Your task to perform on an android device: turn smart compose on in the gmail app Image 0: 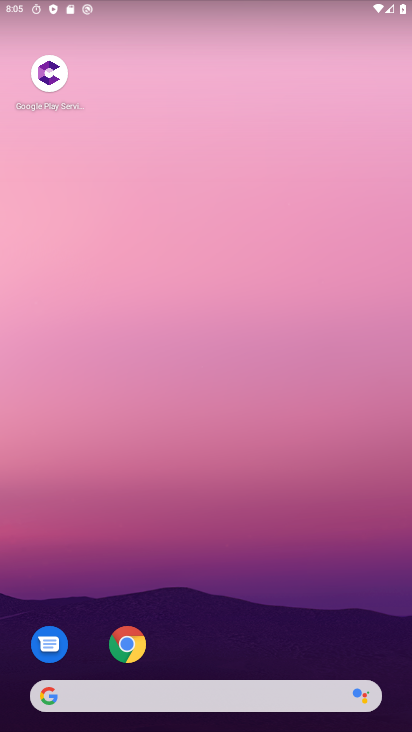
Step 0: drag from (122, 697) to (349, 234)
Your task to perform on an android device: turn smart compose on in the gmail app Image 1: 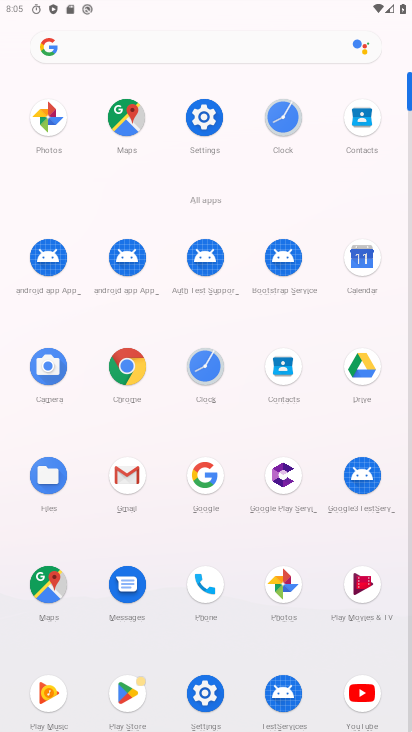
Step 1: click (132, 478)
Your task to perform on an android device: turn smart compose on in the gmail app Image 2: 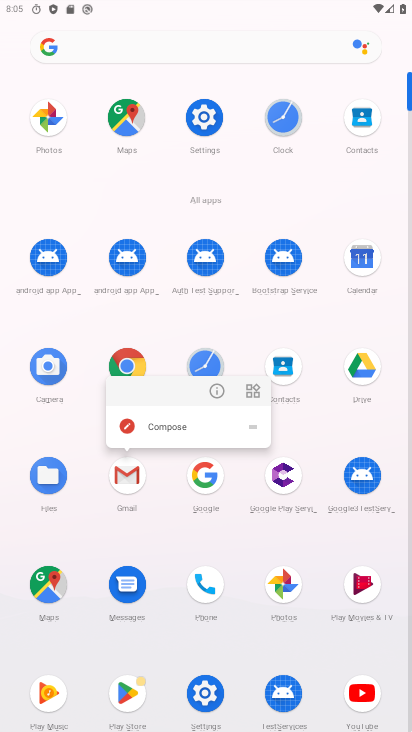
Step 2: click (129, 481)
Your task to perform on an android device: turn smart compose on in the gmail app Image 3: 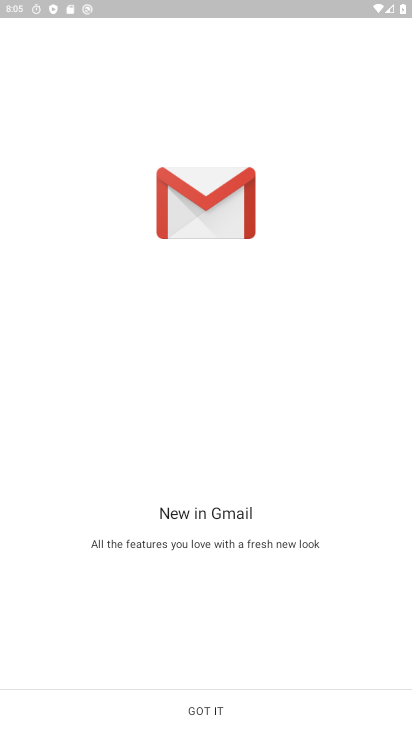
Step 3: click (202, 706)
Your task to perform on an android device: turn smart compose on in the gmail app Image 4: 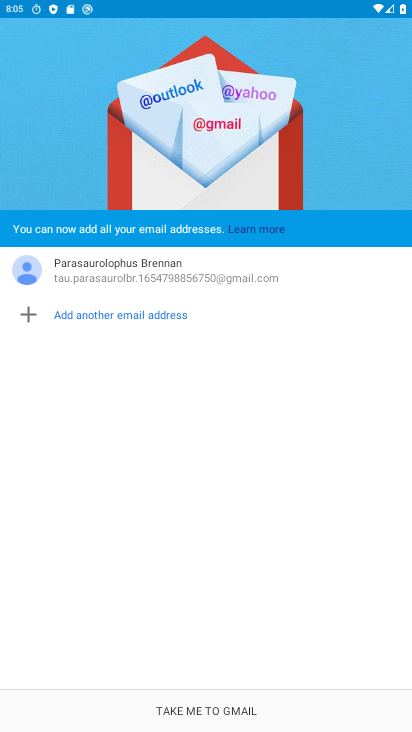
Step 4: click (208, 706)
Your task to perform on an android device: turn smart compose on in the gmail app Image 5: 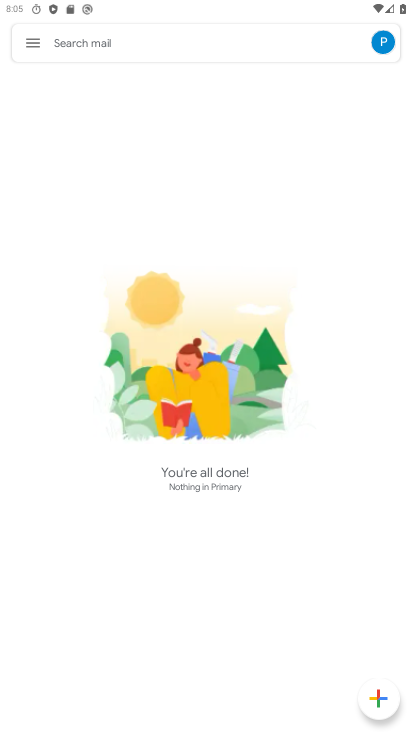
Step 5: click (39, 41)
Your task to perform on an android device: turn smart compose on in the gmail app Image 6: 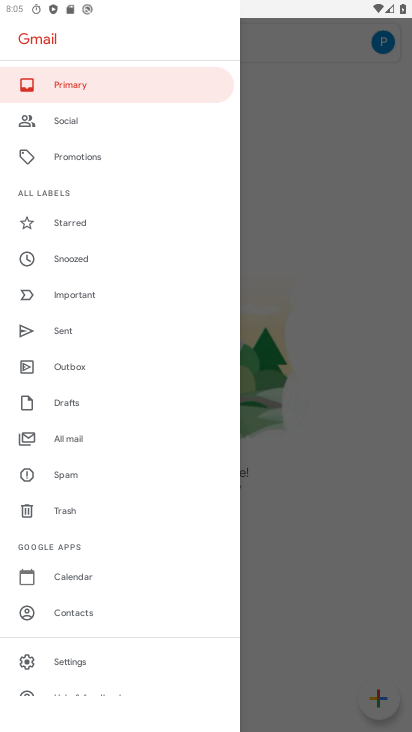
Step 6: click (68, 660)
Your task to perform on an android device: turn smart compose on in the gmail app Image 7: 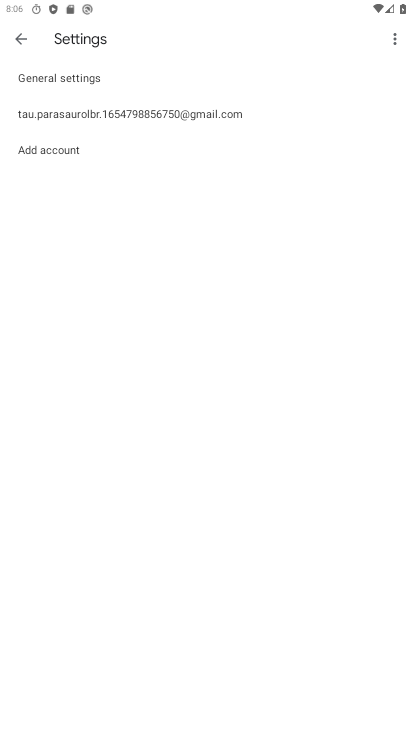
Step 7: click (196, 112)
Your task to perform on an android device: turn smart compose on in the gmail app Image 8: 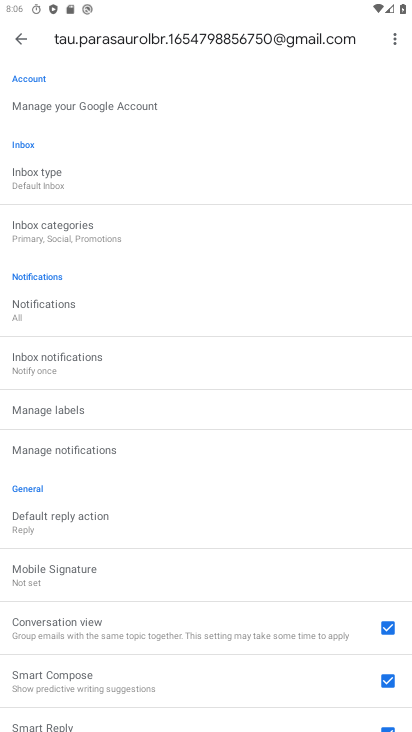
Step 8: task complete